Your task to perform on an android device: Do I have any events today? Image 0: 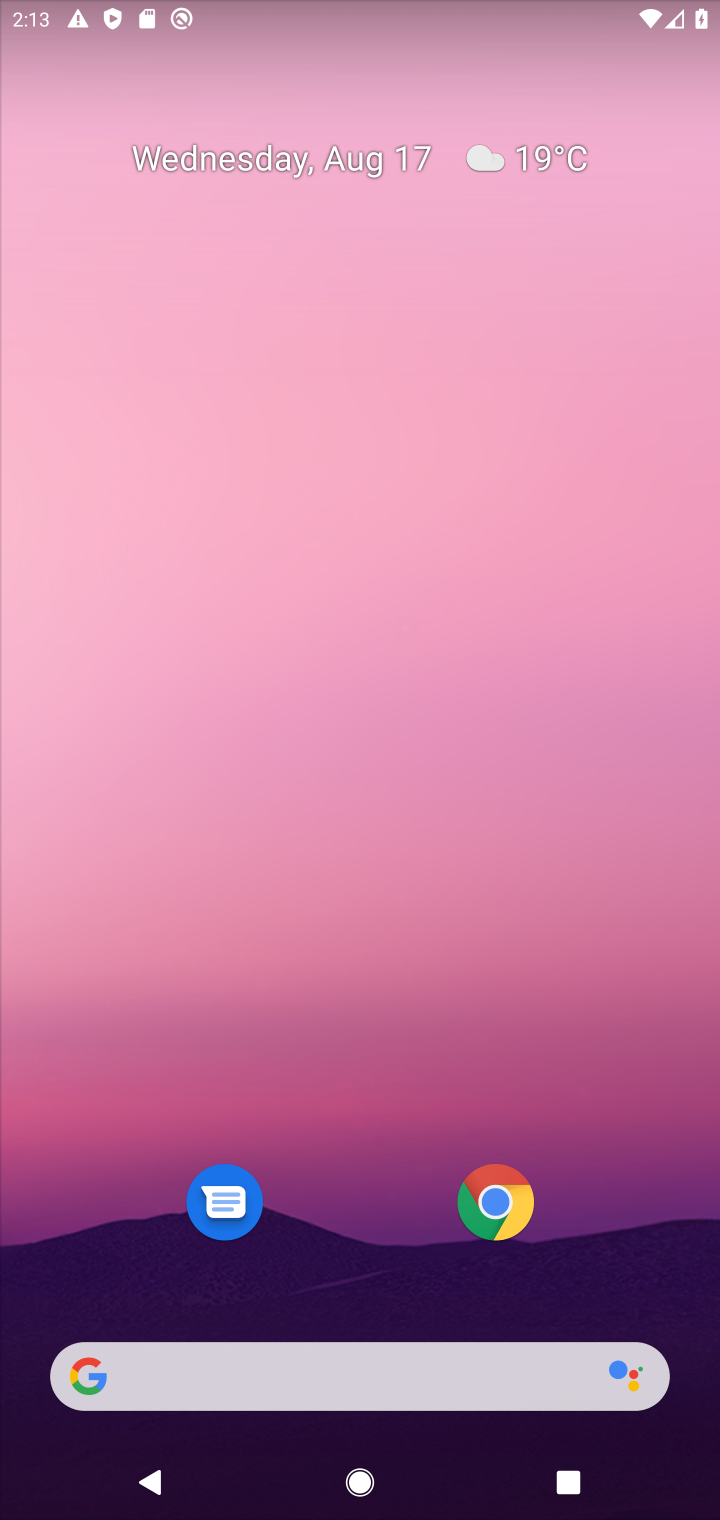
Step 0: drag from (368, 1279) to (700, 0)
Your task to perform on an android device: Do I have any events today? Image 1: 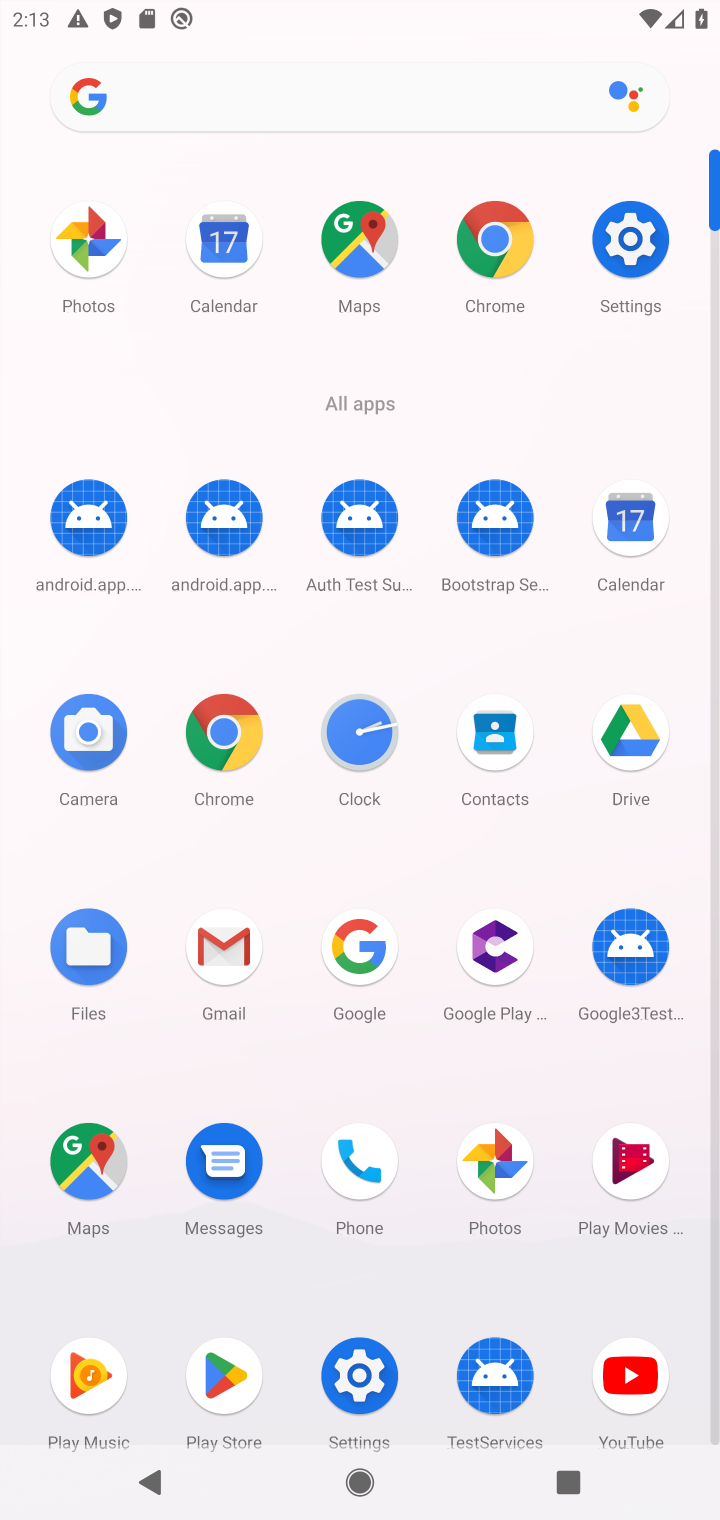
Step 1: click (644, 542)
Your task to perform on an android device: Do I have any events today? Image 2: 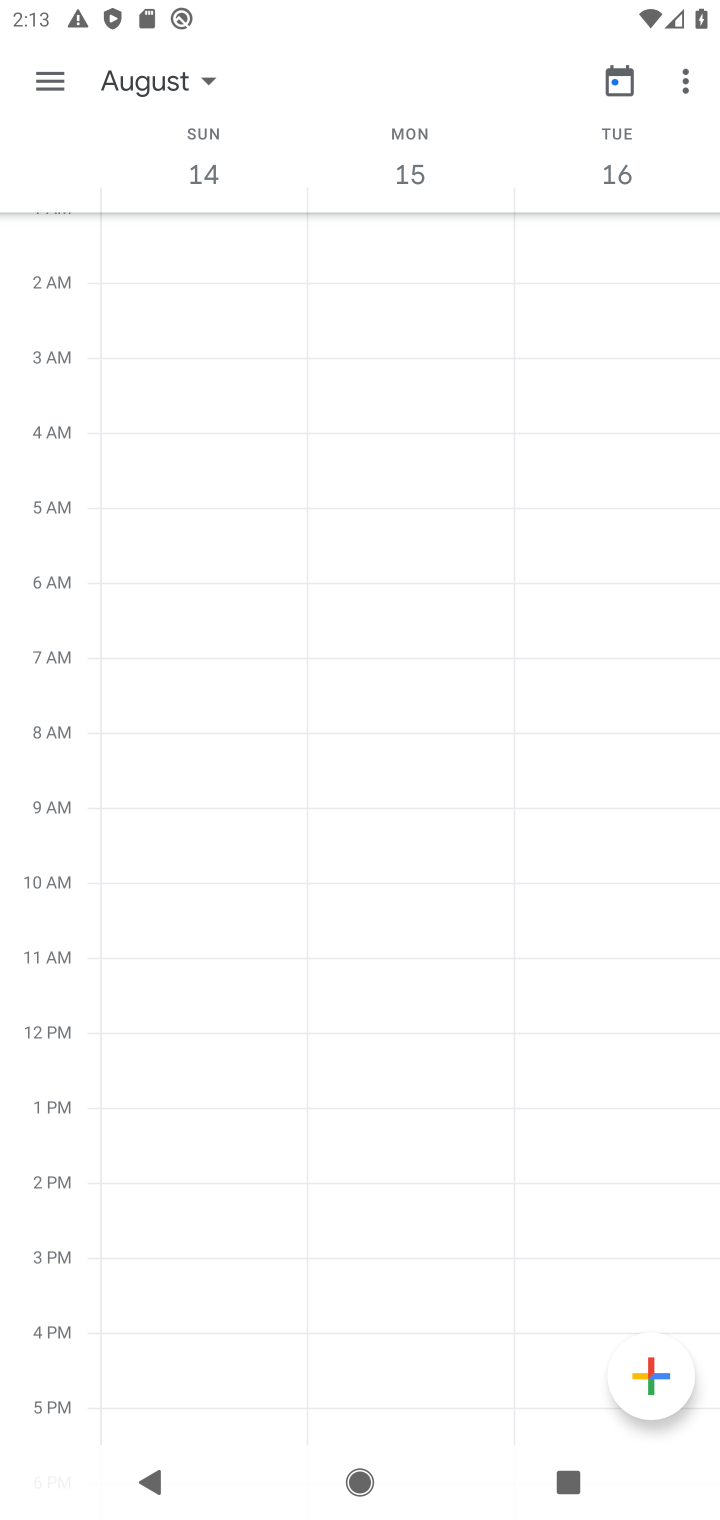
Step 2: click (48, 69)
Your task to perform on an android device: Do I have any events today? Image 3: 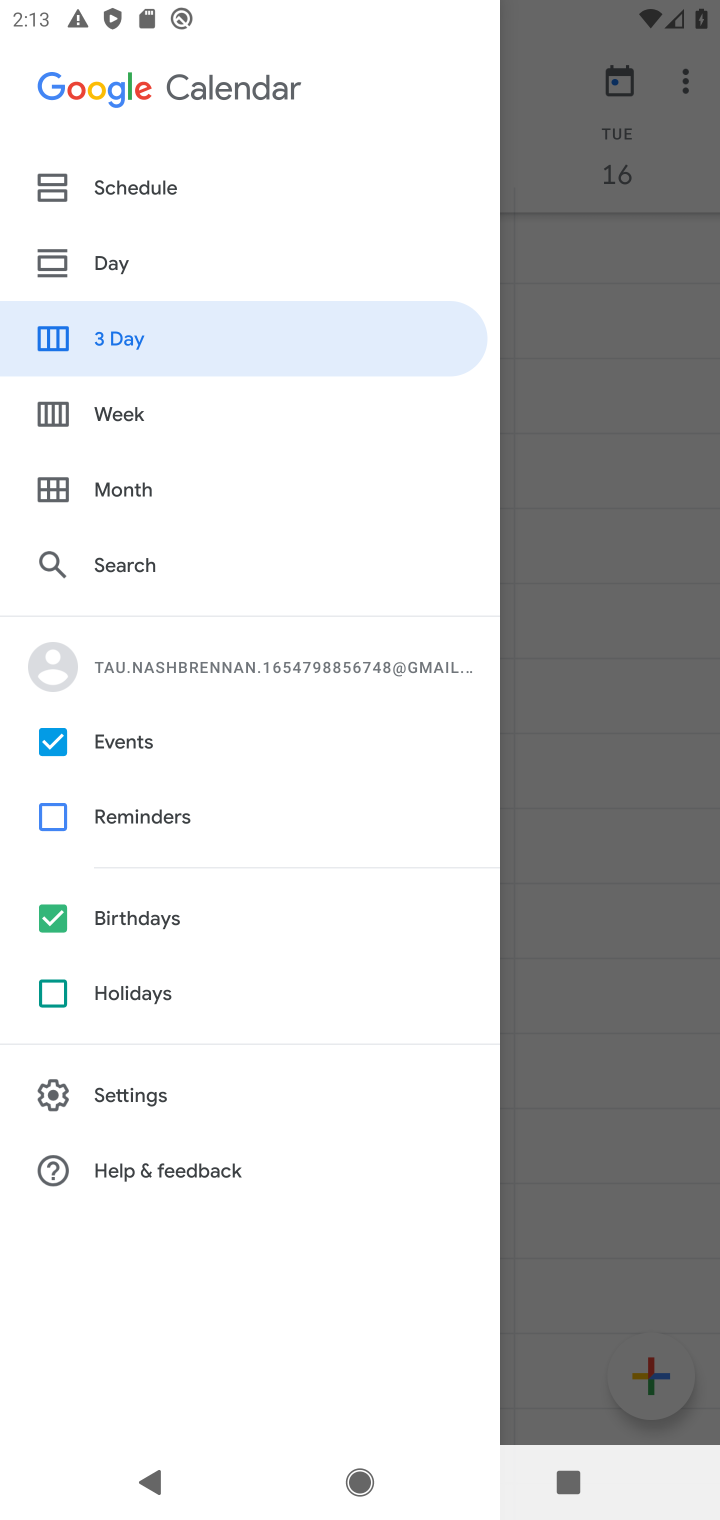
Step 3: click (173, 893)
Your task to perform on an android device: Do I have any events today? Image 4: 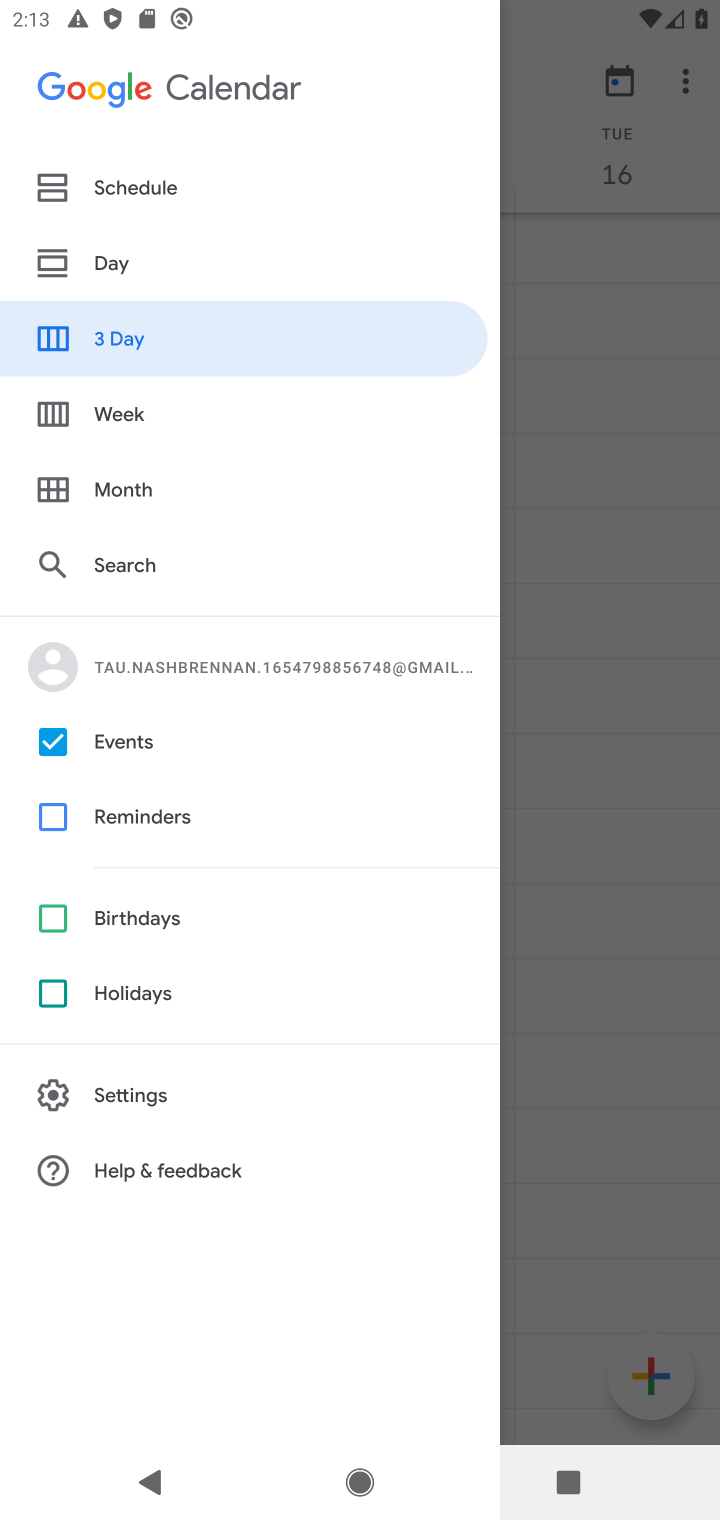
Step 4: click (148, 251)
Your task to perform on an android device: Do I have any events today? Image 5: 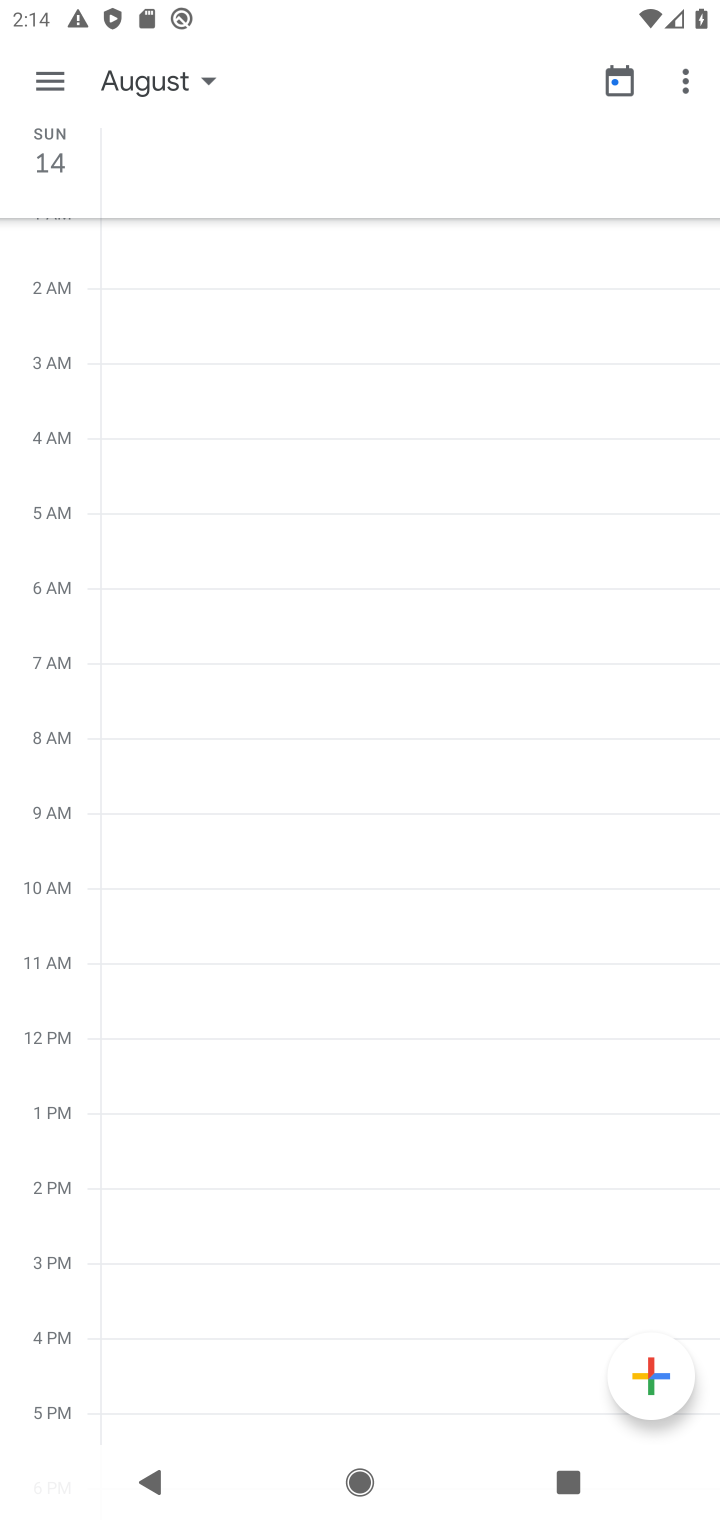
Step 5: task complete